Your task to perform on an android device: find which apps use the phone's location Image 0: 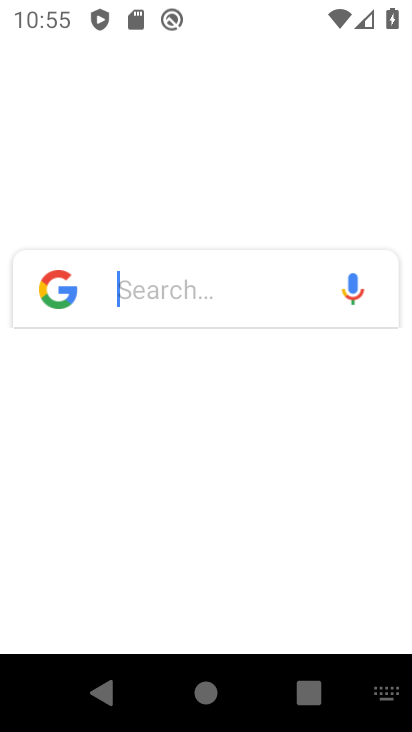
Step 0: click (202, 484)
Your task to perform on an android device: find which apps use the phone's location Image 1: 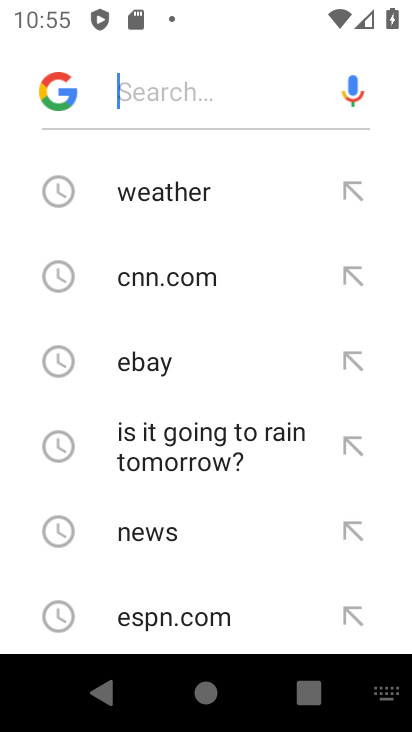
Step 1: press home button
Your task to perform on an android device: find which apps use the phone's location Image 2: 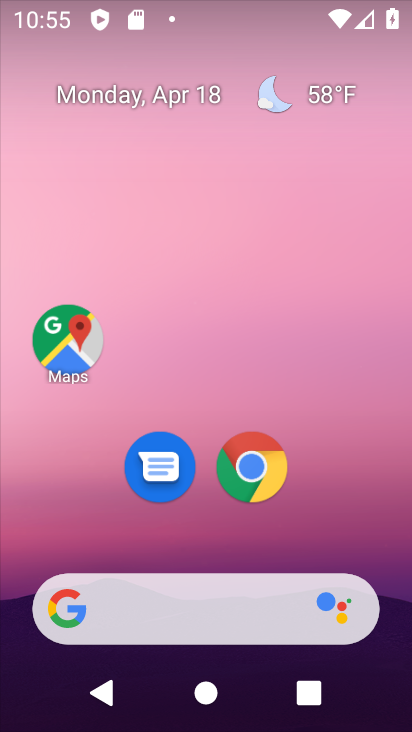
Step 2: drag from (211, 472) to (228, 72)
Your task to perform on an android device: find which apps use the phone's location Image 3: 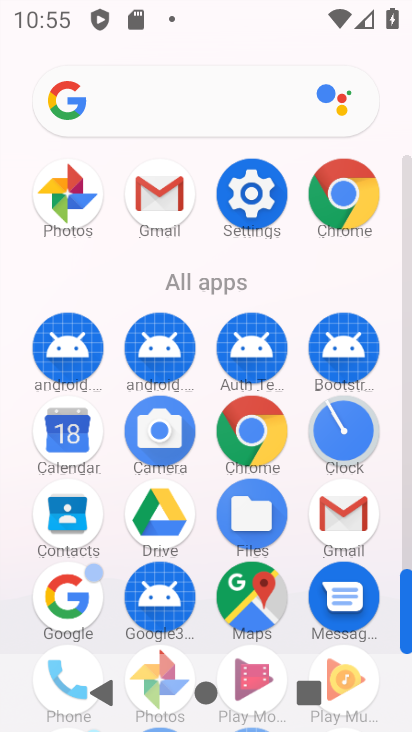
Step 3: click (263, 196)
Your task to perform on an android device: find which apps use the phone's location Image 4: 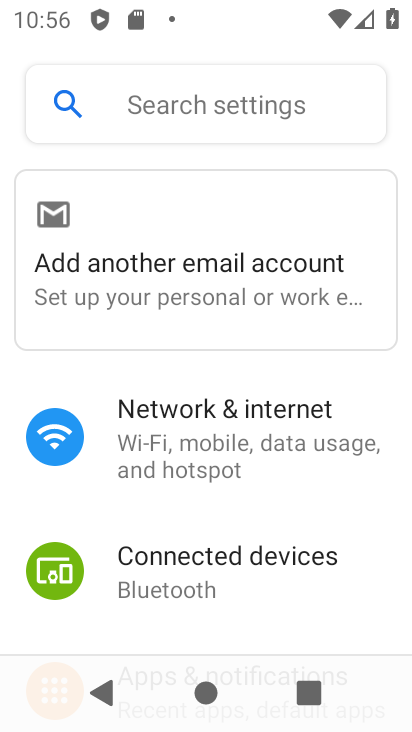
Step 4: drag from (260, 557) to (277, 248)
Your task to perform on an android device: find which apps use the phone's location Image 5: 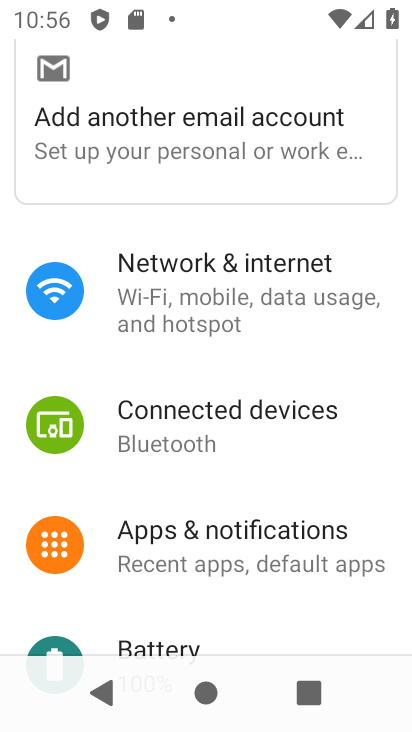
Step 5: drag from (271, 478) to (275, 287)
Your task to perform on an android device: find which apps use the phone's location Image 6: 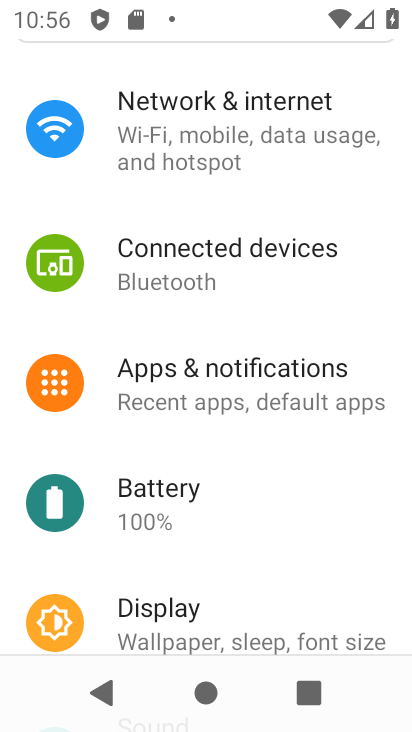
Step 6: drag from (251, 610) to (268, 176)
Your task to perform on an android device: find which apps use the phone's location Image 7: 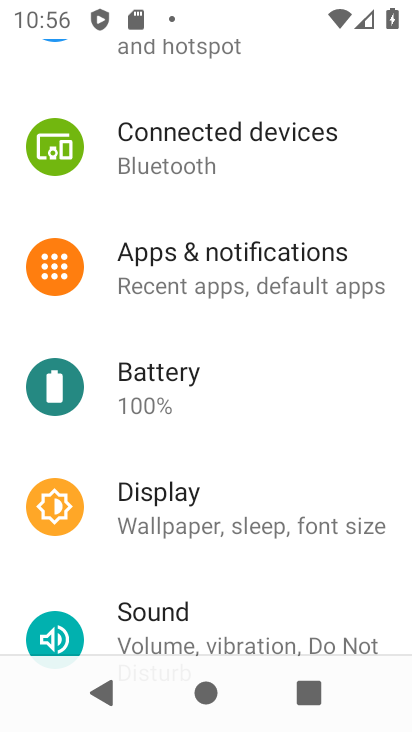
Step 7: drag from (241, 563) to (238, 216)
Your task to perform on an android device: find which apps use the phone's location Image 8: 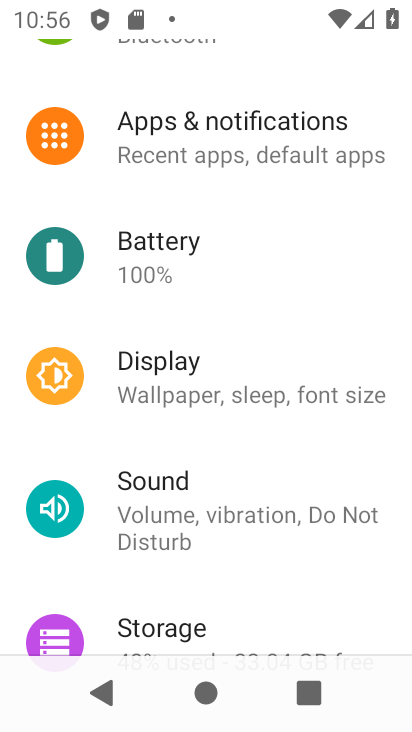
Step 8: drag from (248, 585) to (258, 193)
Your task to perform on an android device: find which apps use the phone's location Image 9: 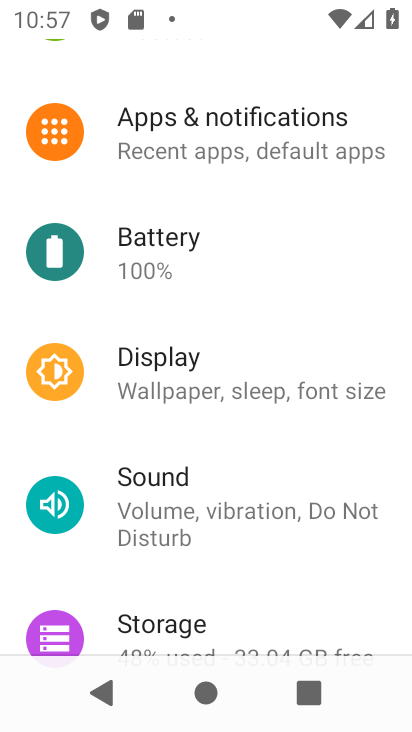
Step 9: drag from (254, 573) to (239, 178)
Your task to perform on an android device: find which apps use the phone's location Image 10: 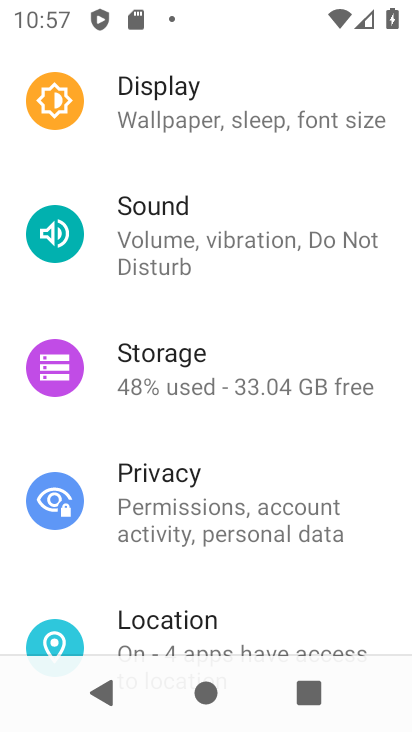
Step 10: click (189, 618)
Your task to perform on an android device: find which apps use the phone's location Image 11: 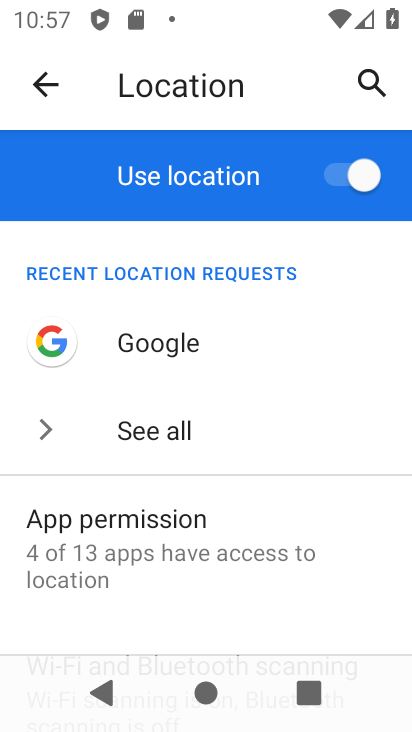
Step 11: drag from (222, 307) to (227, 211)
Your task to perform on an android device: find which apps use the phone's location Image 12: 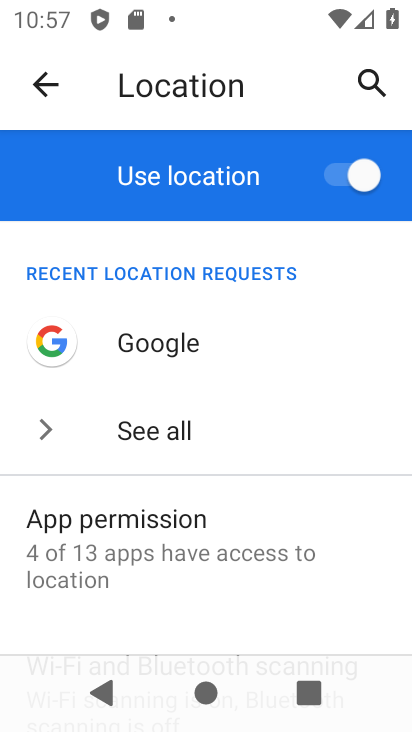
Step 12: drag from (186, 587) to (215, 208)
Your task to perform on an android device: find which apps use the phone's location Image 13: 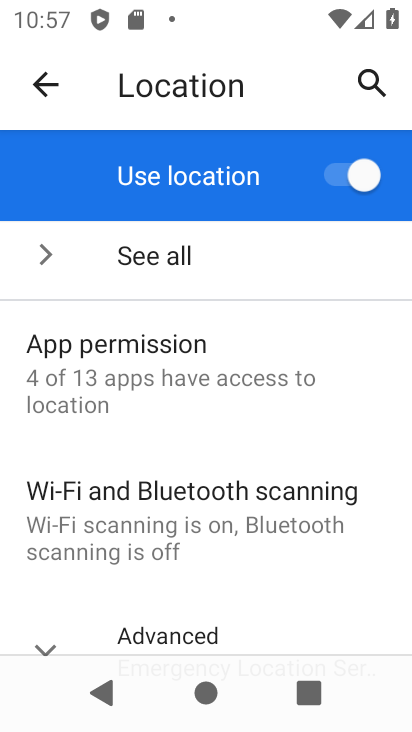
Step 13: click (178, 381)
Your task to perform on an android device: find which apps use the phone's location Image 14: 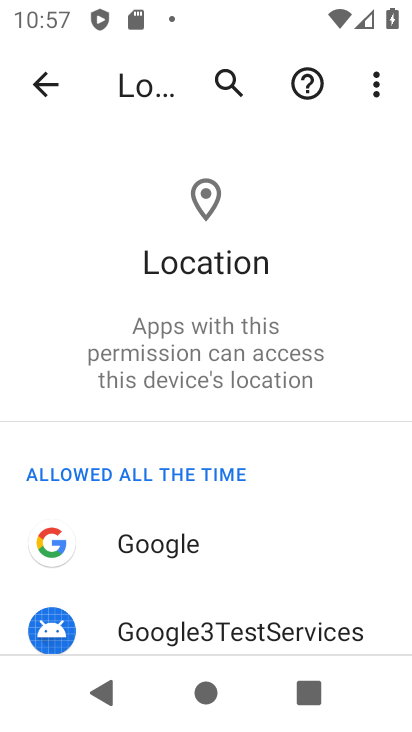
Step 14: task complete